Your task to perform on an android device: Go to ESPN.com Image 0: 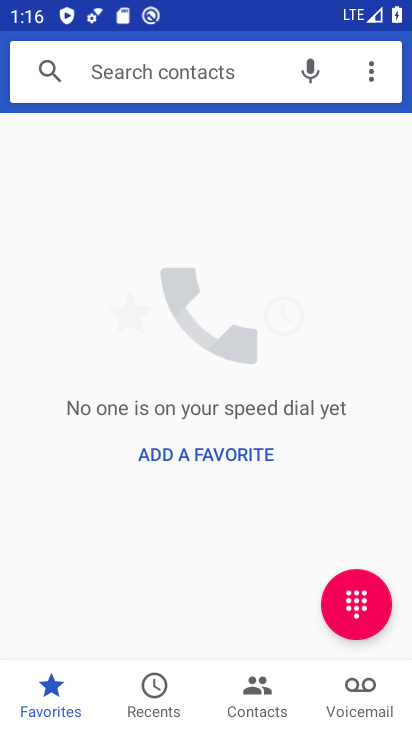
Step 0: press home button
Your task to perform on an android device: Go to ESPN.com Image 1: 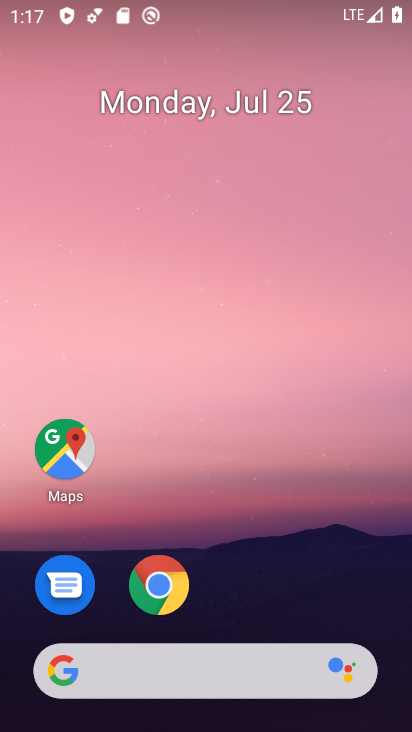
Step 1: click (155, 594)
Your task to perform on an android device: Go to ESPN.com Image 2: 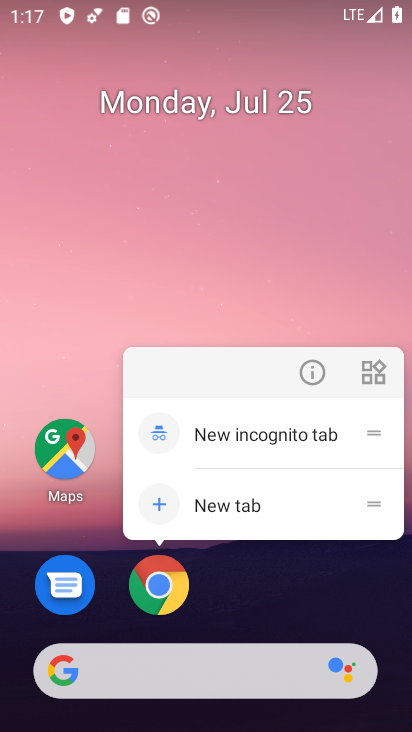
Step 2: click (155, 594)
Your task to perform on an android device: Go to ESPN.com Image 3: 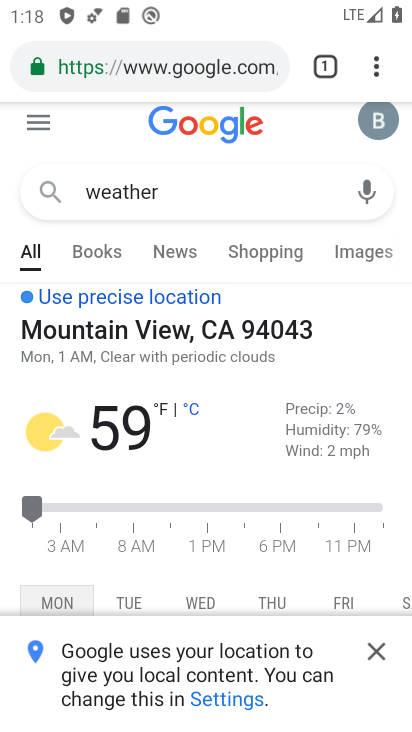
Step 3: click (219, 66)
Your task to perform on an android device: Go to ESPN.com Image 4: 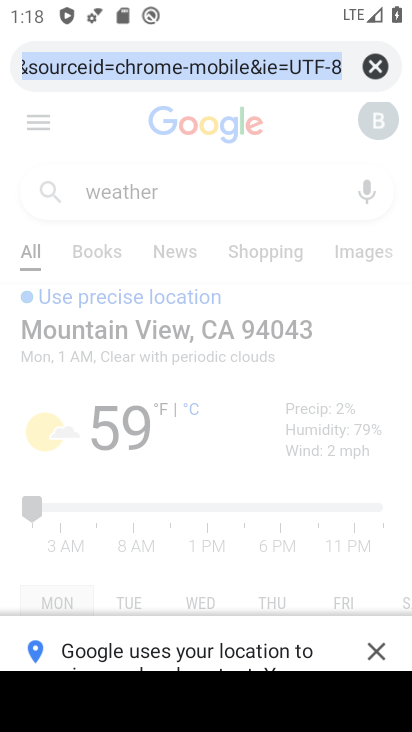
Step 4: type "espn.com"
Your task to perform on an android device: Go to ESPN.com Image 5: 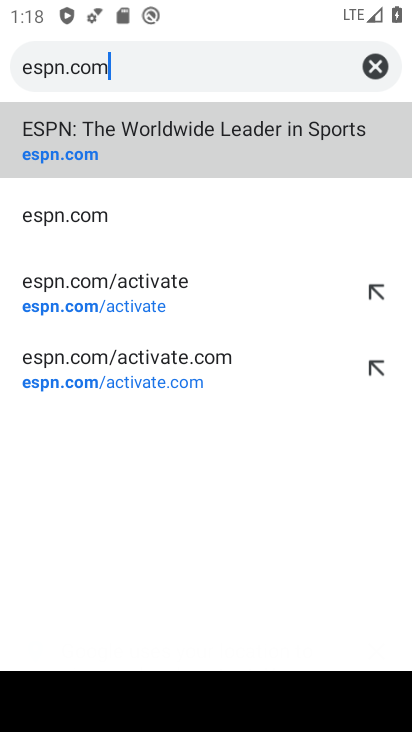
Step 5: click (133, 151)
Your task to perform on an android device: Go to ESPN.com Image 6: 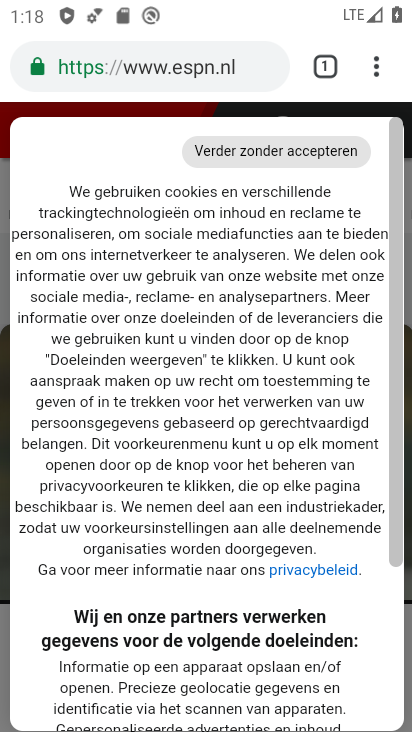
Step 6: task complete